Your task to perform on an android device: Go to location settings Image 0: 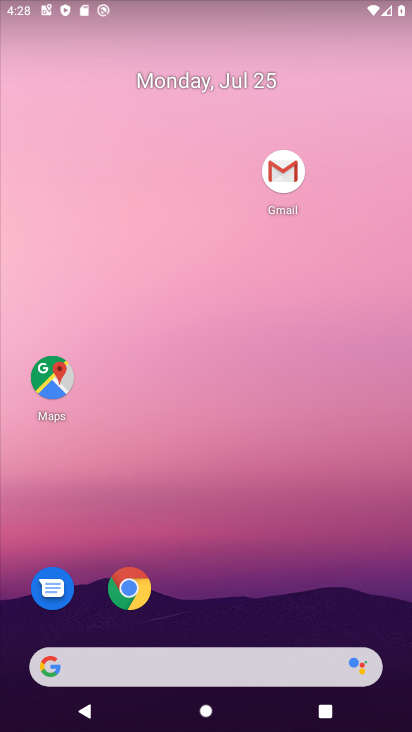
Step 0: drag from (309, 480) to (365, 89)
Your task to perform on an android device: Go to location settings Image 1: 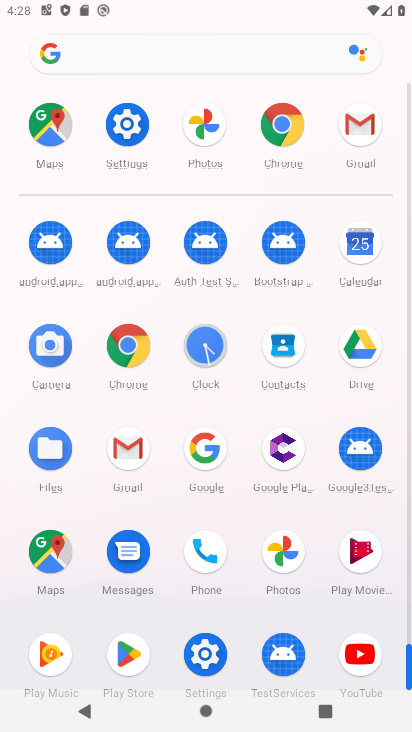
Step 1: click (200, 647)
Your task to perform on an android device: Go to location settings Image 2: 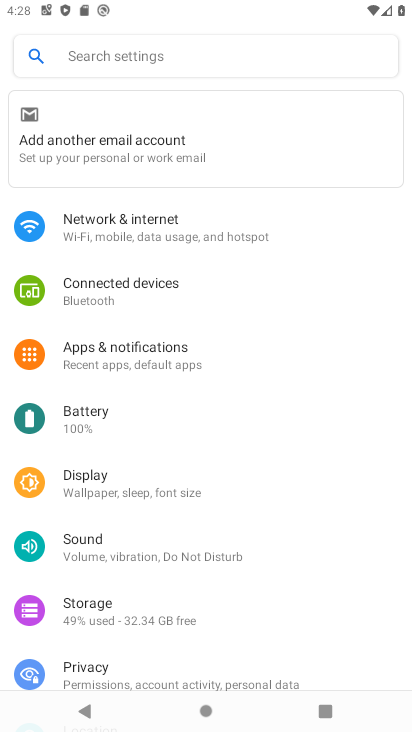
Step 2: drag from (185, 635) to (301, 195)
Your task to perform on an android device: Go to location settings Image 3: 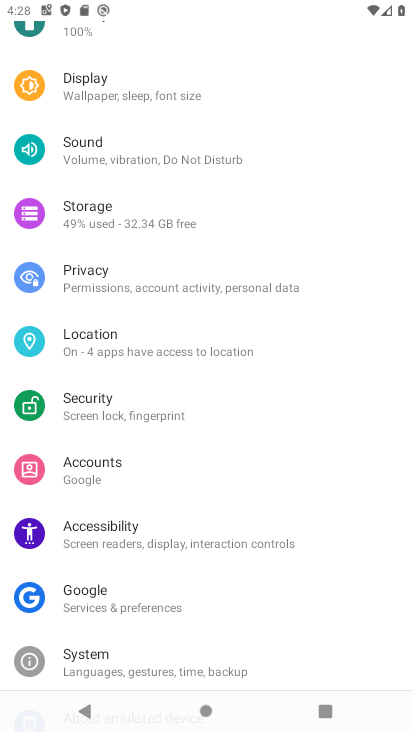
Step 3: click (121, 336)
Your task to perform on an android device: Go to location settings Image 4: 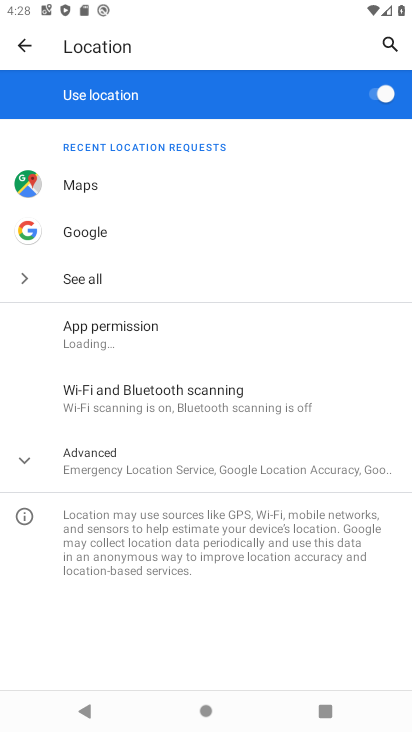
Step 4: task complete